Your task to perform on an android device: turn on improve location accuracy Image 0: 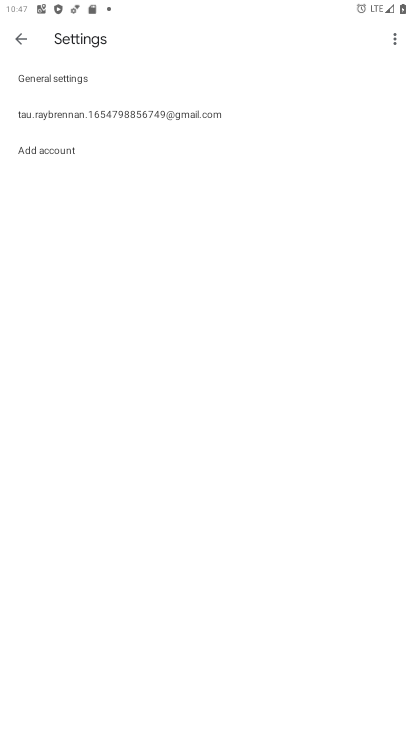
Step 0: press home button
Your task to perform on an android device: turn on improve location accuracy Image 1: 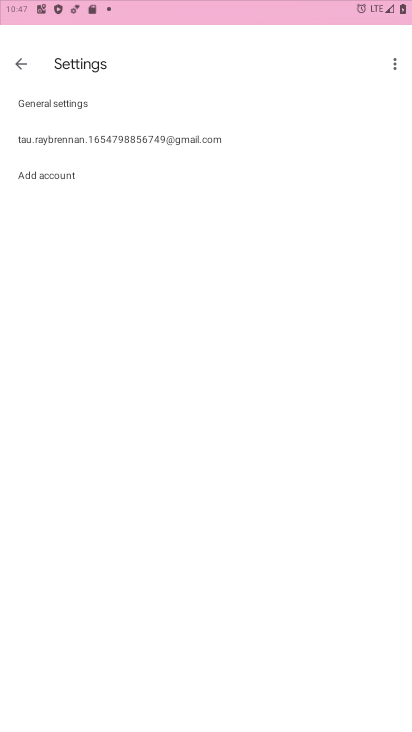
Step 1: drag from (76, 681) to (288, 140)
Your task to perform on an android device: turn on improve location accuracy Image 2: 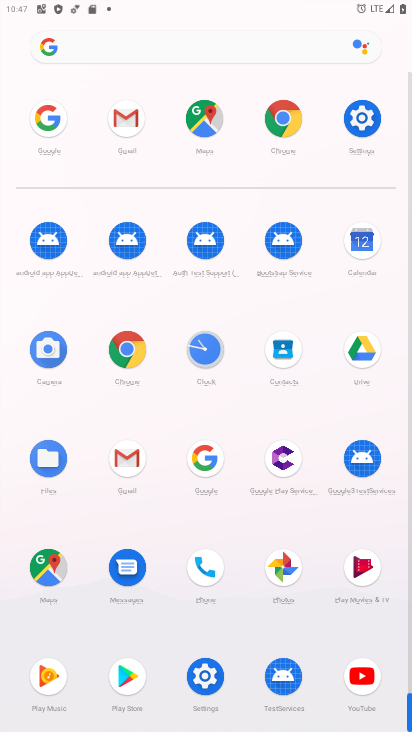
Step 2: click (353, 128)
Your task to perform on an android device: turn on improve location accuracy Image 3: 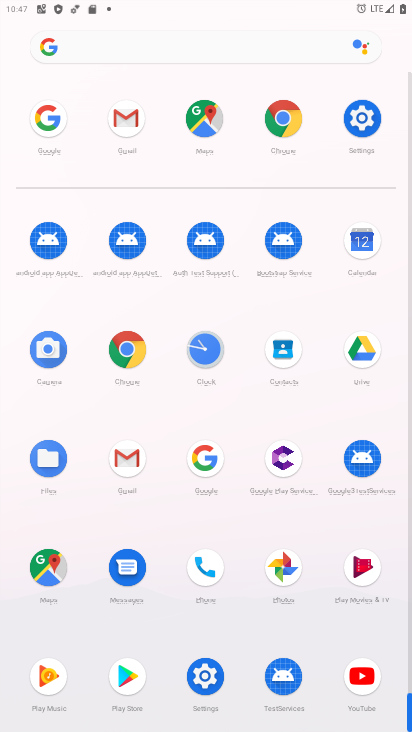
Step 3: click (352, 127)
Your task to perform on an android device: turn on improve location accuracy Image 4: 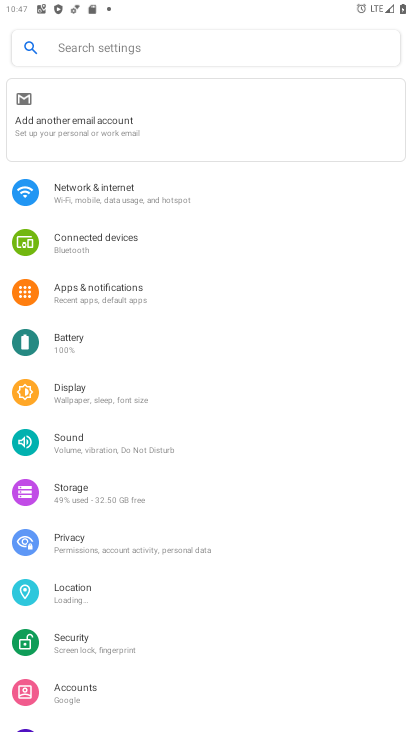
Step 4: drag from (171, 482) to (268, 110)
Your task to perform on an android device: turn on improve location accuracy Image 5: 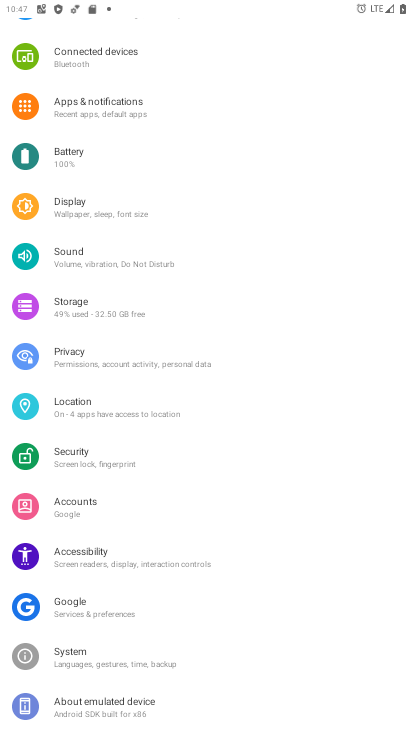
Step 5: click (101, 396)
Your task to perform on an android device: turn on improve location accuracy Image 6: 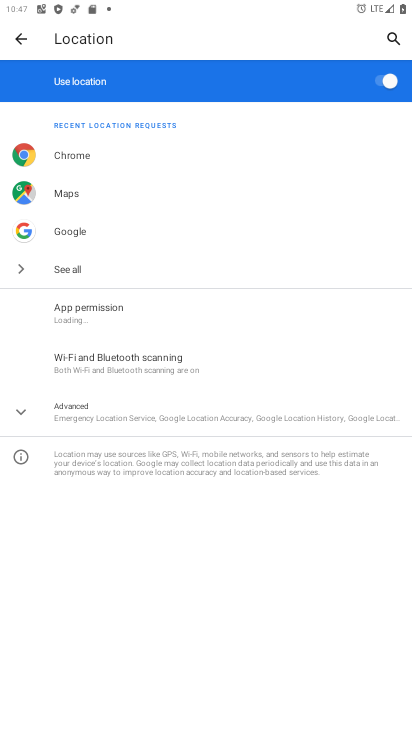
Step 6: click (134, 408)
Your task to perform on an android device: turn on improve location accuracy Image 7: 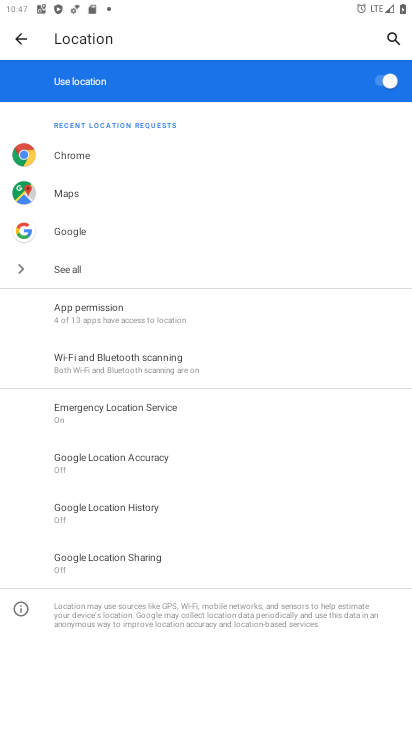
Step 7: click (133, 456)
Your task to perform on an android device: turn on improve location accuracy Image 8: 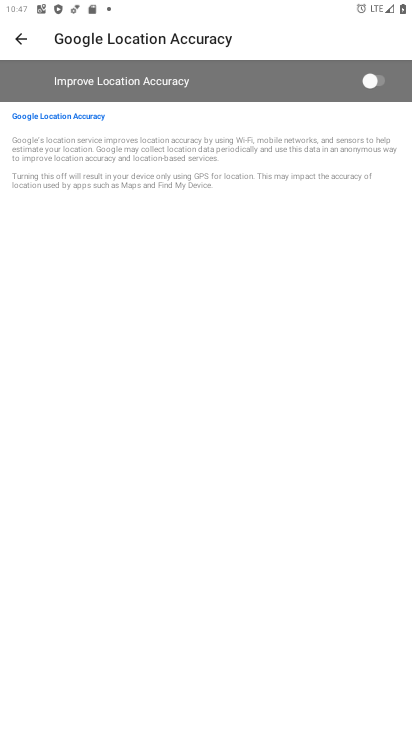
Step 8: click (344, 79)
Your task to perform on an android device: turn on improve location accuracy Image 9: 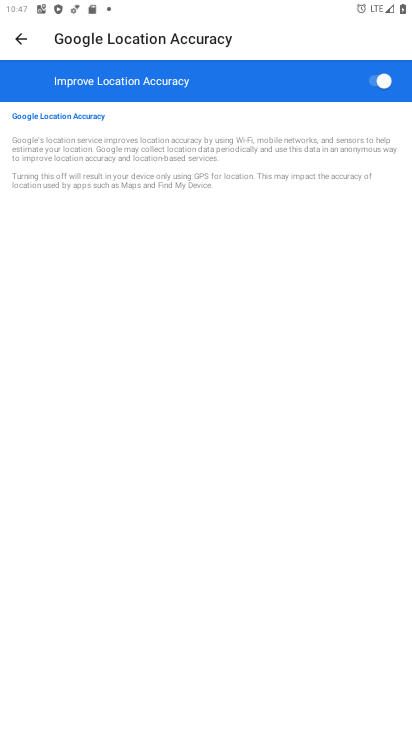
Step 9: task complete